Your task to perform on an android device: Open Google Chrome Image 0: 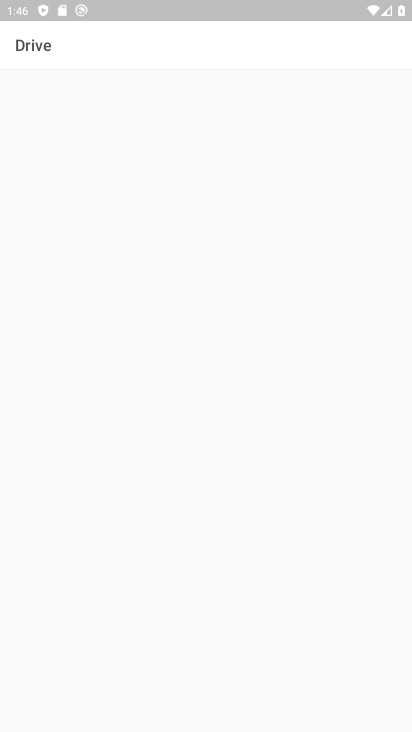
Step 0: press home button
Your task to perform on an android device: Open Google Chrome Image 1: 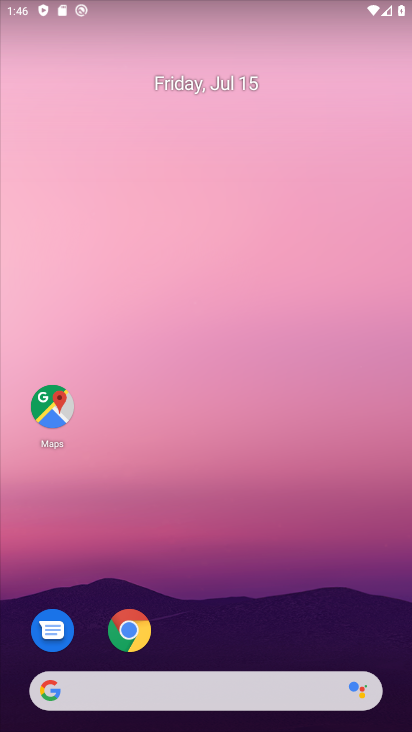
Step 1: drag from (330, 573) to (354, 68)
Your task to perform on an android device: Open Google Chrome Image 2: 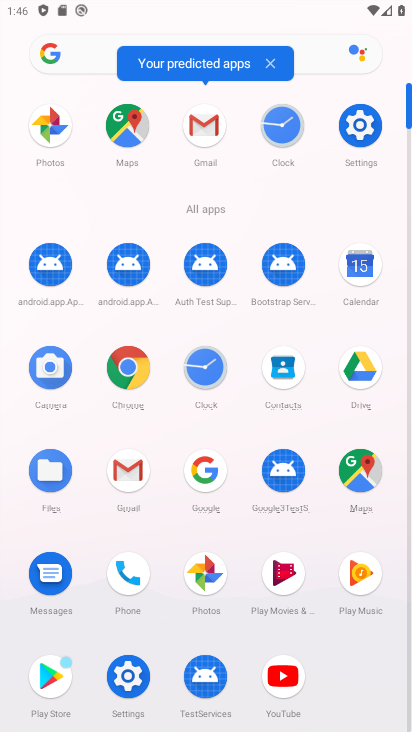
Step 2: click (140, 373)
Your task to perform on an android device: Open Google Chrome Image 3: 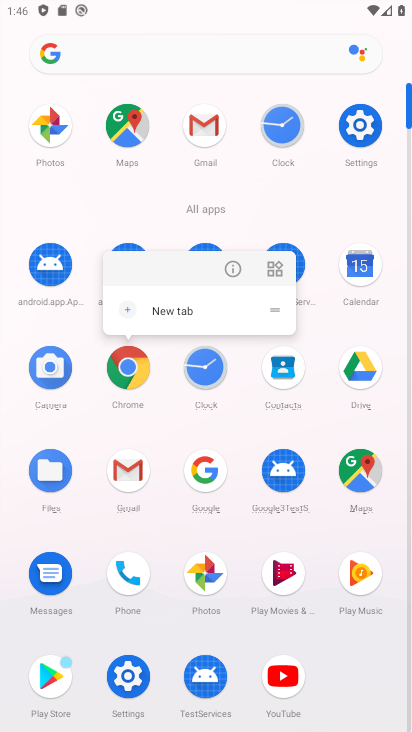
Step 3: click (140, 373)
Your task to perform on an android device: Open Google Chrome Image 4: 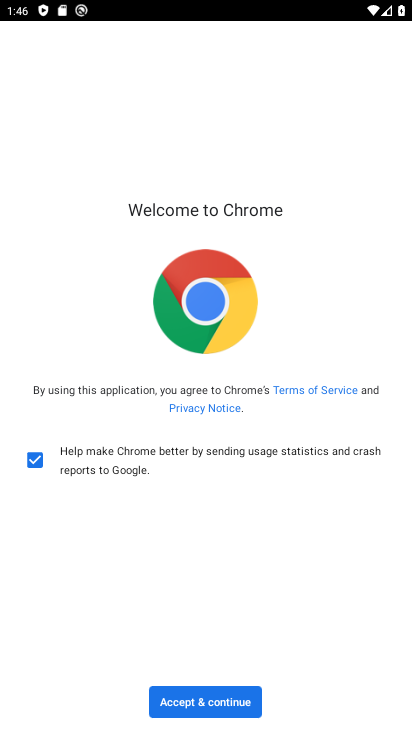
Step 4: click (213, 693)
Your task to perform on an android device: Open Google Chrome Image 5: 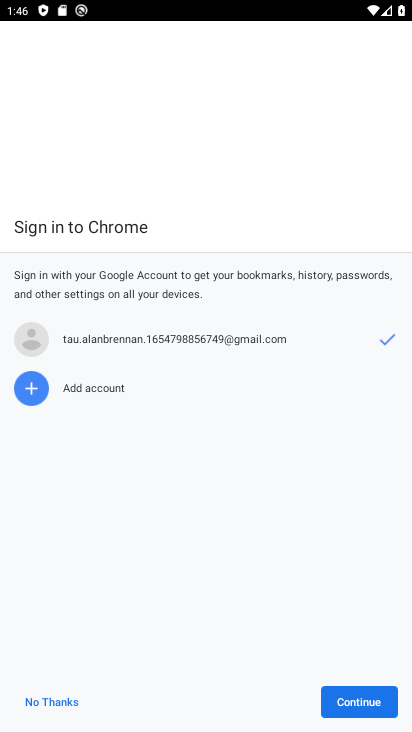
Step 5: click (351, 710)
Your task to perform on an android device: Open Google Chrome Image 6: 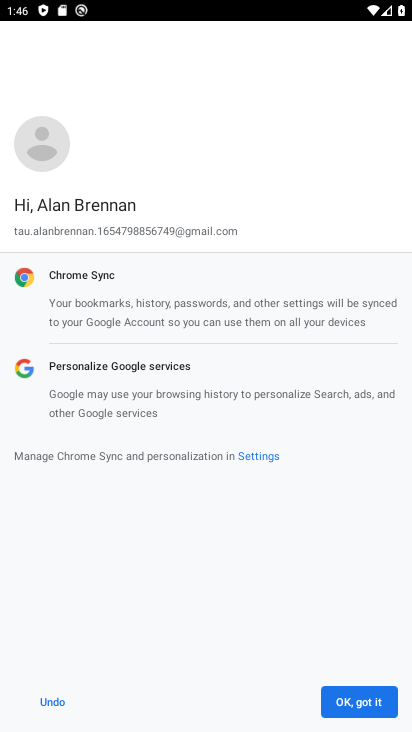
Step 6: click (370, 697)
Your task to perform on an android device: Open Google Chrome Image 7: 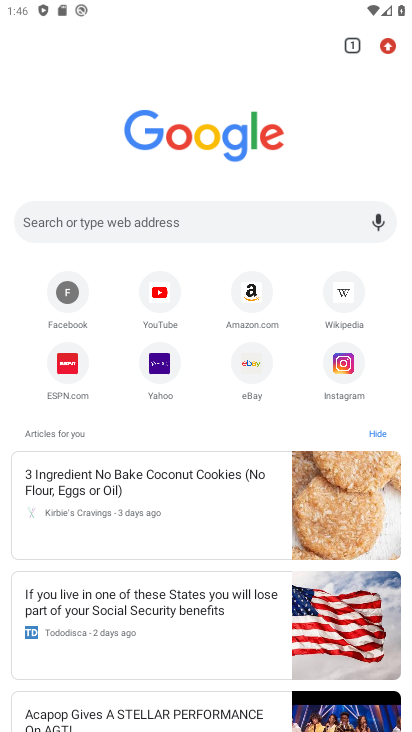
Step 7: task complete